Your task to perform on an android device: set an alarm Image 0: 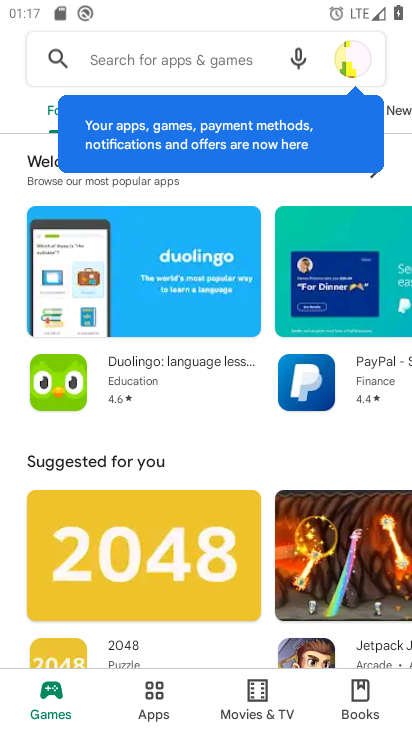
Step 0: press home button
Your task to perform on an android device: set an alarm Image 1: 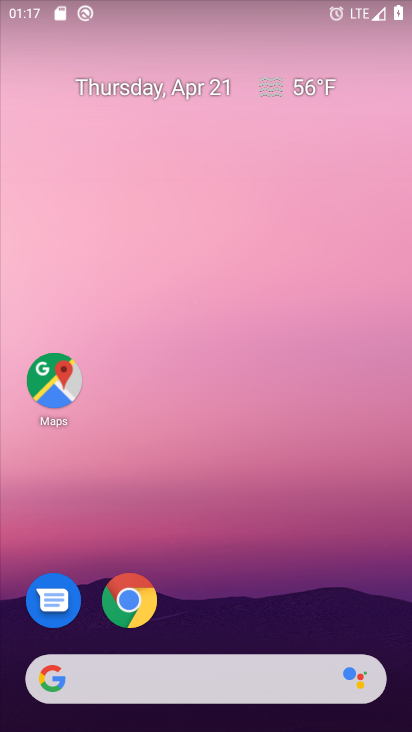
Step 1: drag from (252, 574) to (317, 138)
Your task to perform on an android device: set an alarm Image 2: 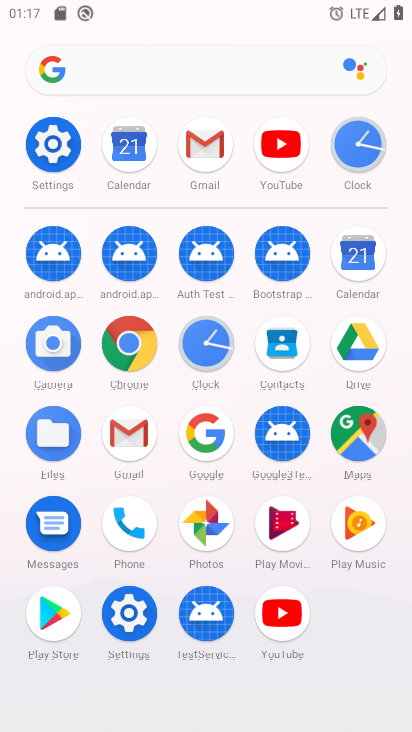
Step 2: click (368, 142)
Your task to perform on an android device: set an alarm Image 3: 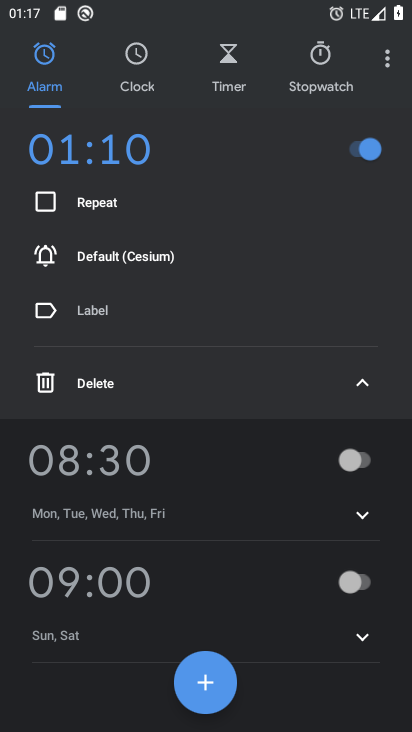
Step 3: click (208, 678)
Your task to perform on an android device: set an alarm Image 4: 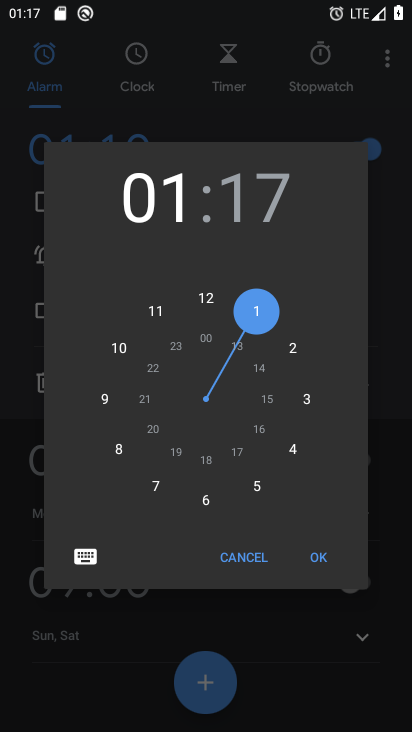
Step 4: click (320, 552)
Your task to perform on an android device: set an alarm Image 5: 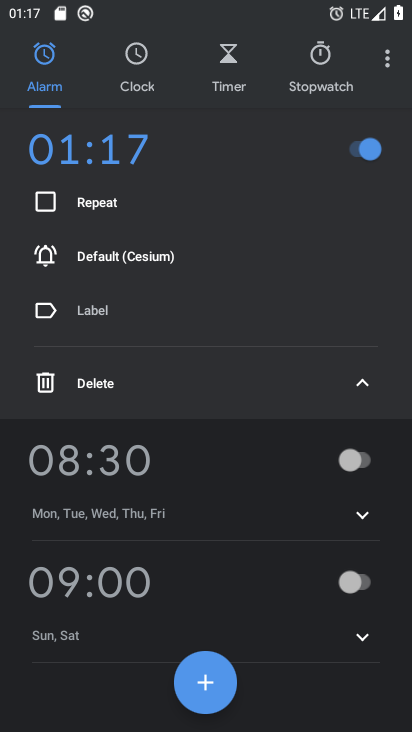
Step 5: task complete